Your task to perform on an android device: Open Yahoo.com Image 0: 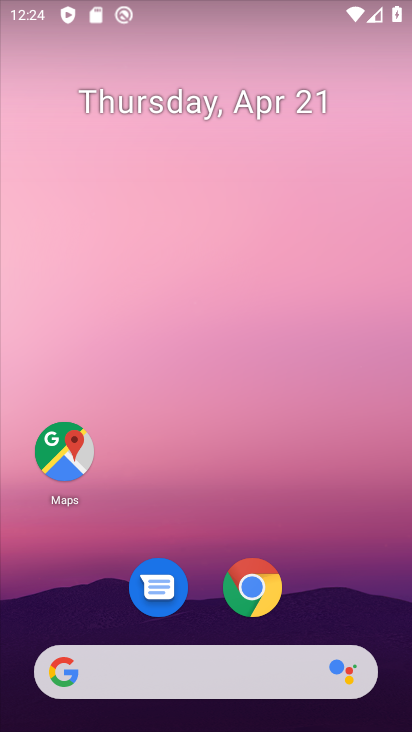
Step 0: click (254, 586)
Your task to perform on an android device: Open Yahoo.com Image 1: 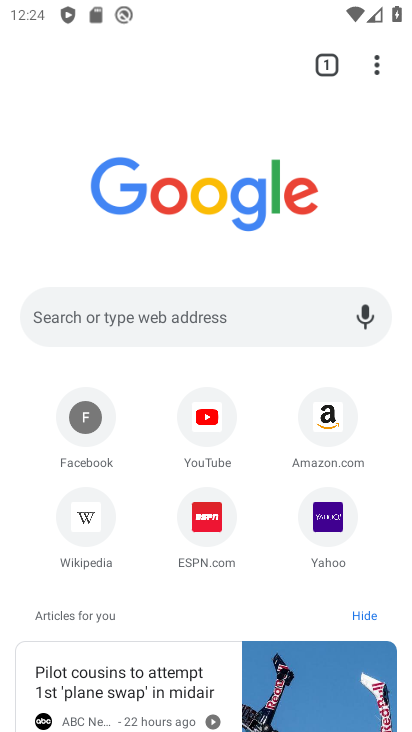
Step 1: click (322, 526)
Your task to perform on an android device: Open Yahoo.com Image 2: 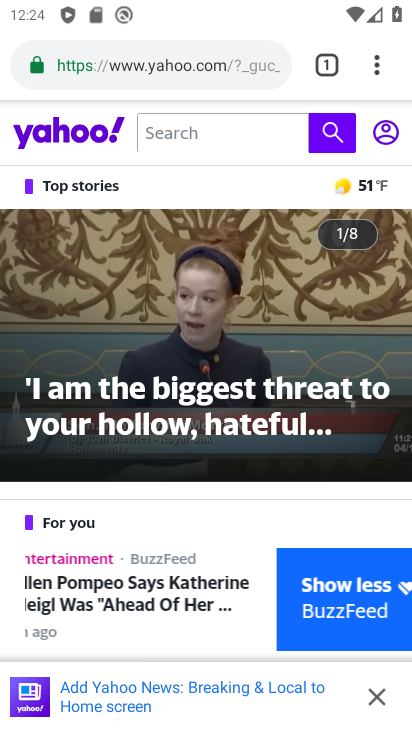
Step 2: task complete